Your task to perform on an android device: turn off improve location accuracy Image 0: 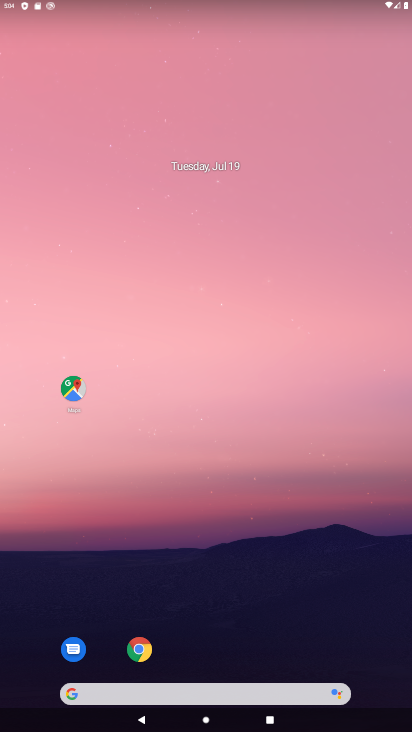
Step 0: drag from (223, 370) to (173, 23)
Your task to perform on an android device: turn off improve location accuracy Image 1: 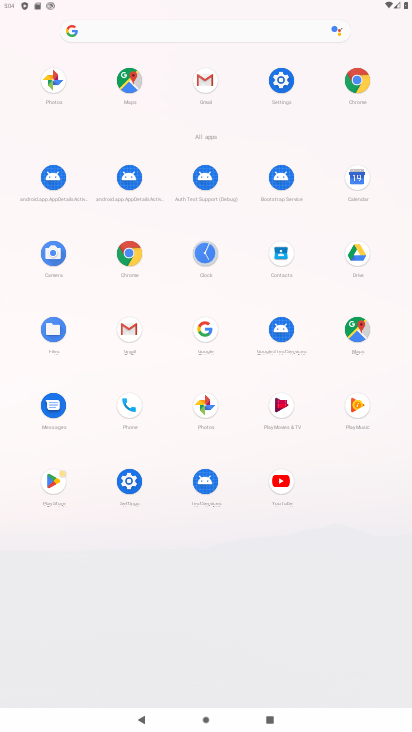
Step 1: click (274, 80)
Your task to perform on an android device: turn off improve location accuracy Image 2: 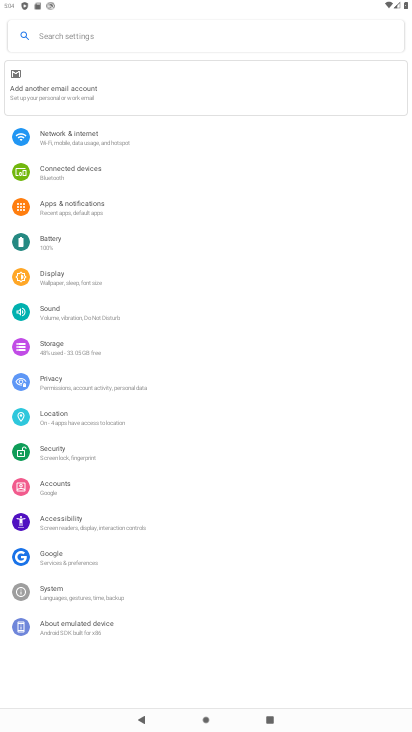
Step 2: click (96, 420)
Your task to perform on an android device: turn off improve location accuracy Image 3: 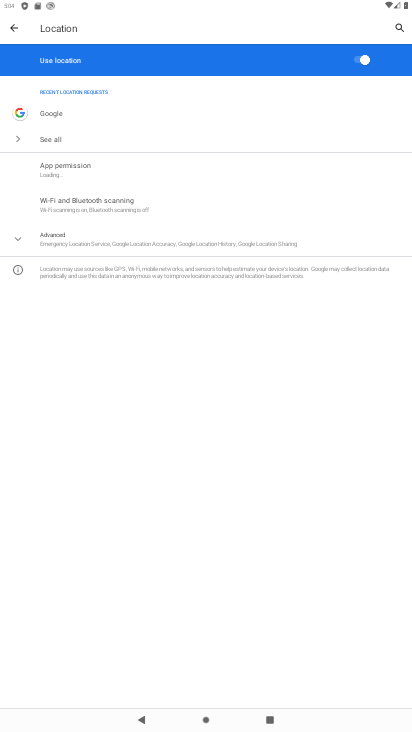
Step 3: click (82, 246)
Your task to perform on an android device: turn off improve location accuracy Image 4: 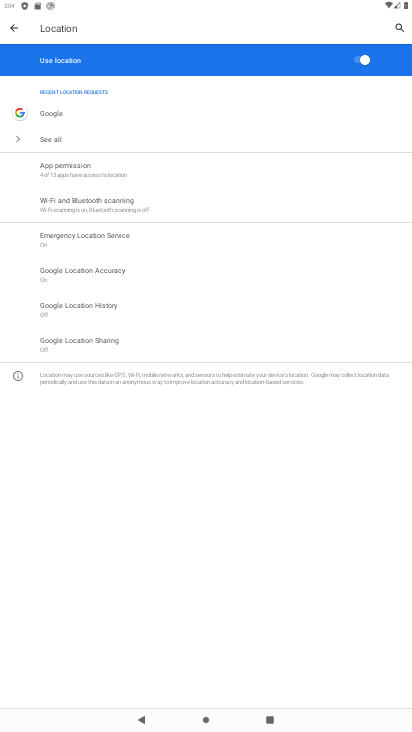
Step 4: click (92, 266)
Your task to perform on an android device: turn off improve location accuracy Image 5: 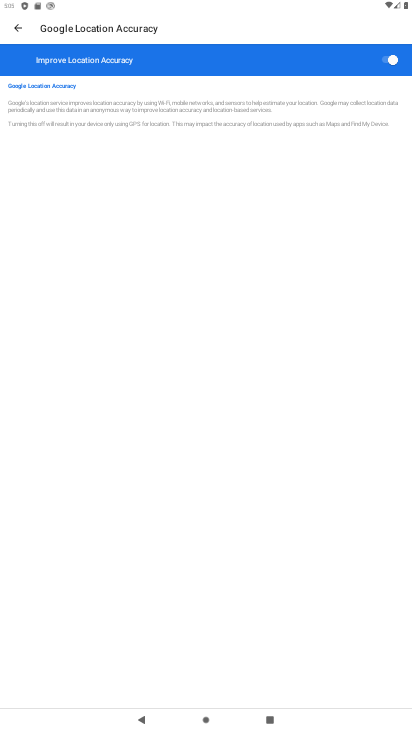
Step 5: click (394, 48)
Your task to perform on an android device: turn off improve location accuracy Image 6: 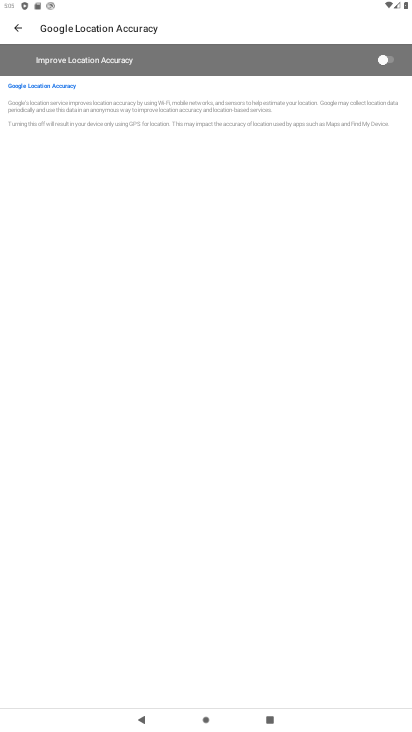
Step 6: task complete